Your task to perform on an android device: Open display settings Image 0: 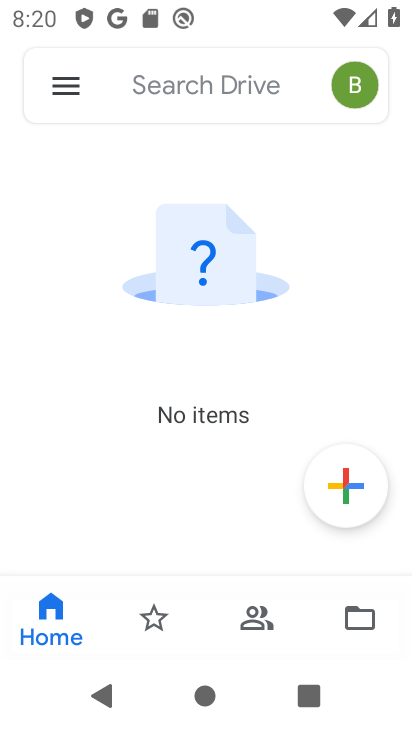
Step 0: press back button
Your task to perform on an android device: Open display settings Image 1: 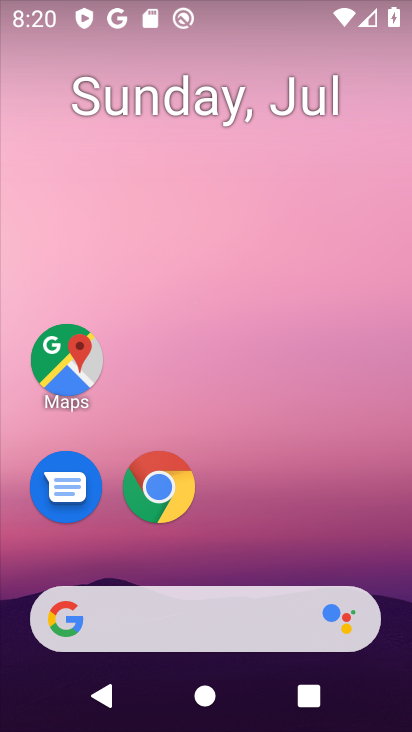
Step 1: drag from (221, 555) to (312, 35)
Your task to perform on an android device: Open display settings Image 2: 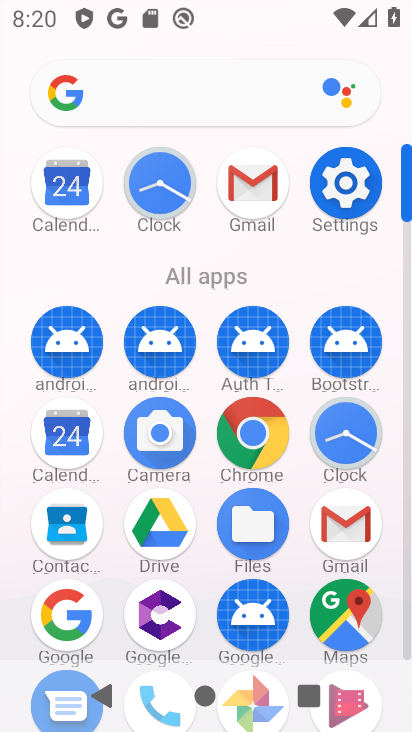
Step 2: click (358, 203)
Your task to perform on an android device: Open display settings Image 3: 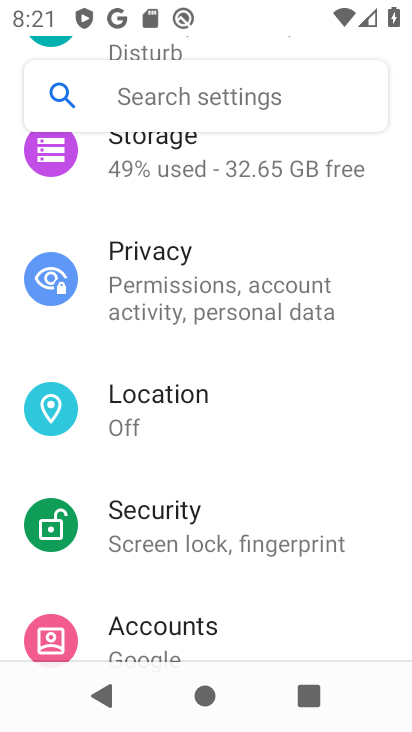
Step 3: drag from (246, 216) to (184, 574)
Your task to perform on an android device: Open display settings Image 4: 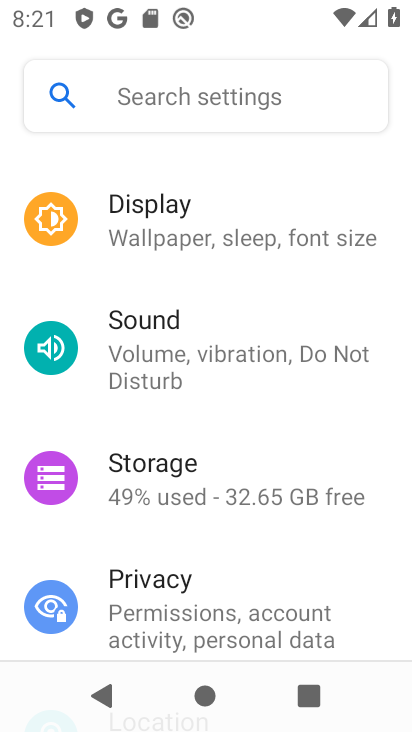
Step 4: click (195, 225)
Your task to perform on an android device: Open display settings Image 5: 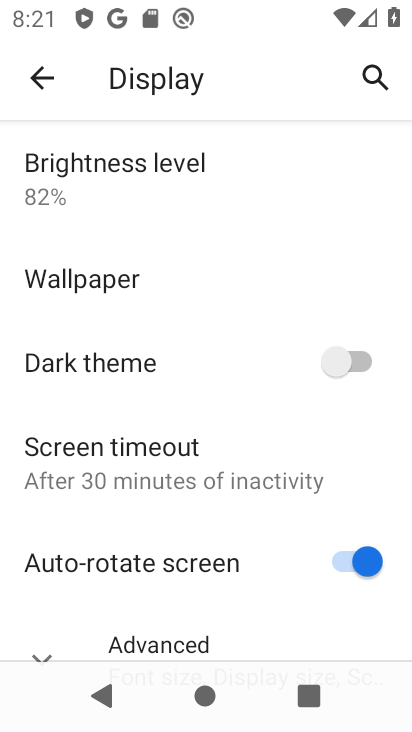
Step 5: task complete